Your task to perform on an android device: What's on the menu at In-N-Out? Image 0: 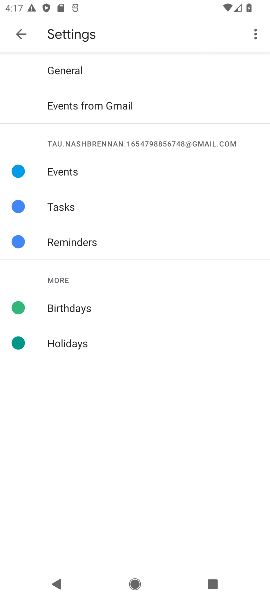
Step 0: press home button
Your task to perform on an android device: What's on the menu at In-N-Out? Image 1: 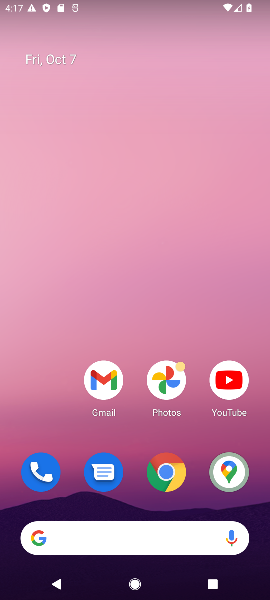
Step 1: click (164, 478)
Your task to perform on an android device: What's on the menu at In-N-Out? Image 2: 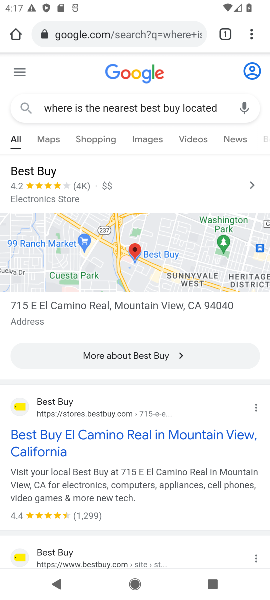
Step 2: click (133, 33)
Your task to perform on an android device: What's on the menu at In-N-Out? Image 3: 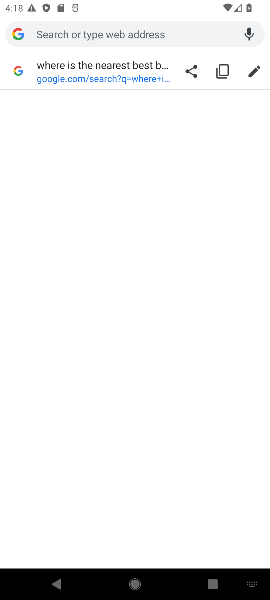
Step 3: type "in-n-out"
Your task to perform on an android device: What's on the menu at In-N-Out? Image 4: 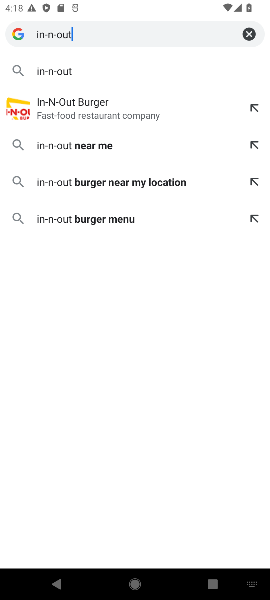
Step 4: click (86, 74)
Your task to perform on an android device: What's on the menu at In-N-Out? Image 5: 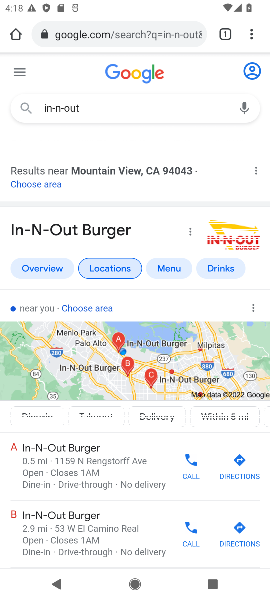
Step 5: drag from (131, 449) to (156, 153)
Your task to perform on an android device: What's on the menu at In-N-Out? Image 6: 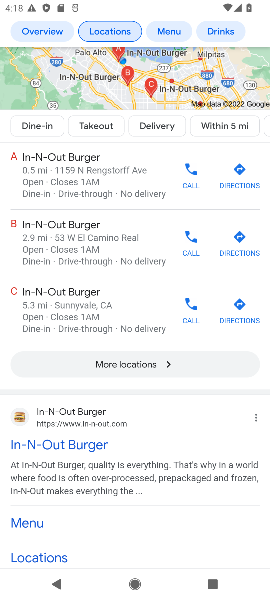
Step 6: click (66, 440)
Your task to perform on an android device: What's on the menu at In-N-Out? Image 7: 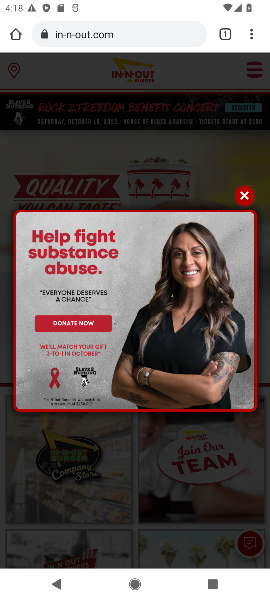
Step 7: click (248, 197)
Your task to perform on an android device: What's on the menu at In-N-Out? Image 8: 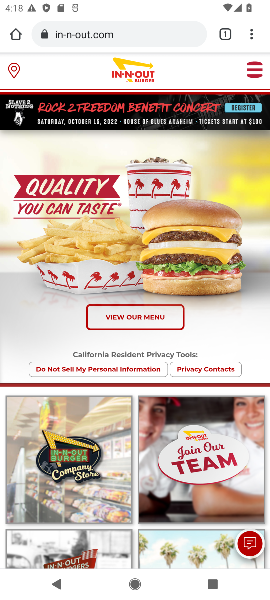
Step 8: click (158, 317)
Your task to perform on an android device: What's on the menu at In-N-Out? Image 9: 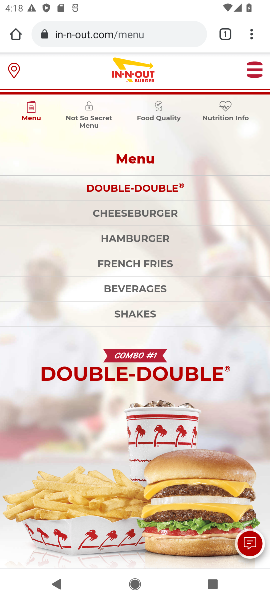
Step 9: task complete